Your task to perform on an android device: turn notification dots on Image 0: 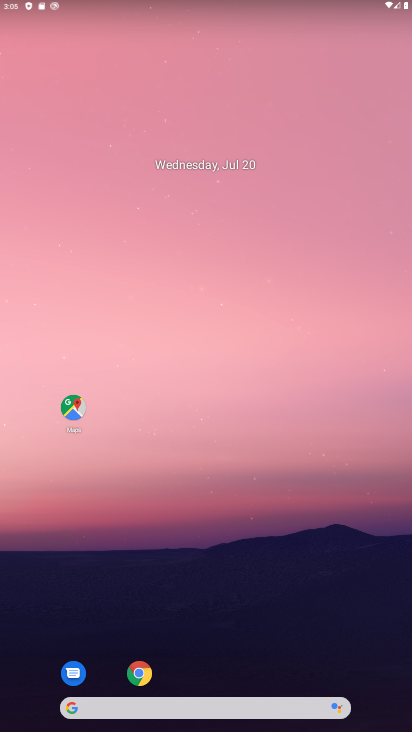
Step 0: drag from (181, 380) to (161, 261)
Your task to perform on an android device: turn notification dots on Image 1: 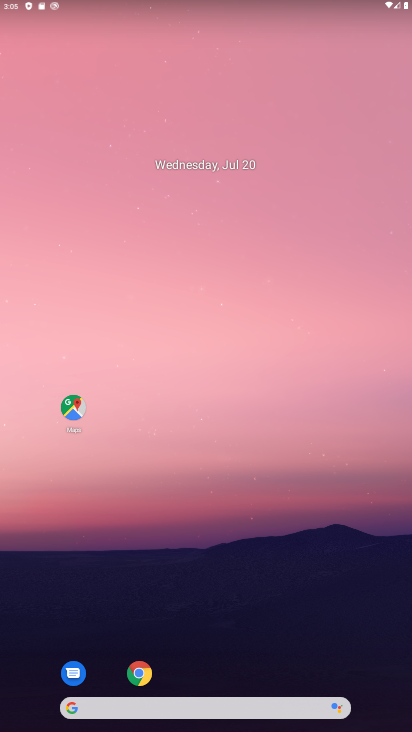
Step 1: drag from (236, 621) to (238, 297)
Your task to perform on an android device: turn notification dots on Image 2: 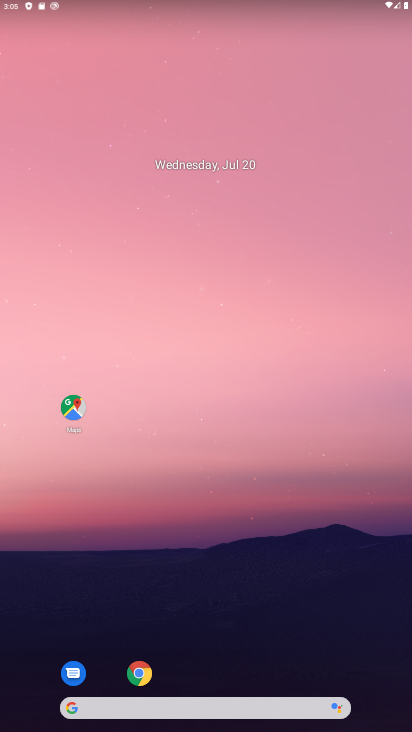
Step 2: drag from (194, 614) to (381, 235)
Your task to perform on an android device: turn notification dots on Image 3: 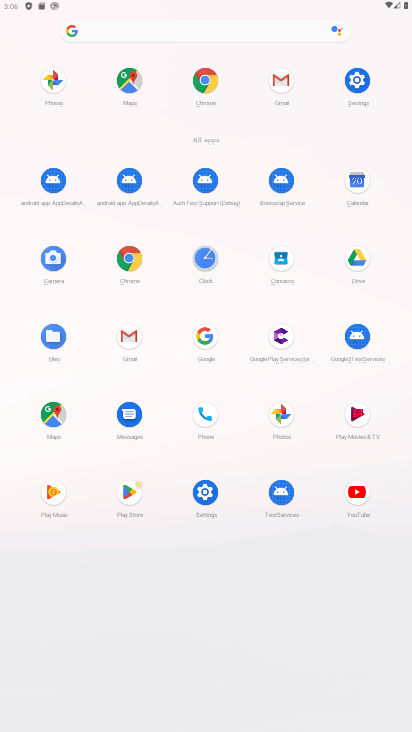
Step 3: click (367, 72)
Your task to perform on an android device: turn notification dots on Image 4: 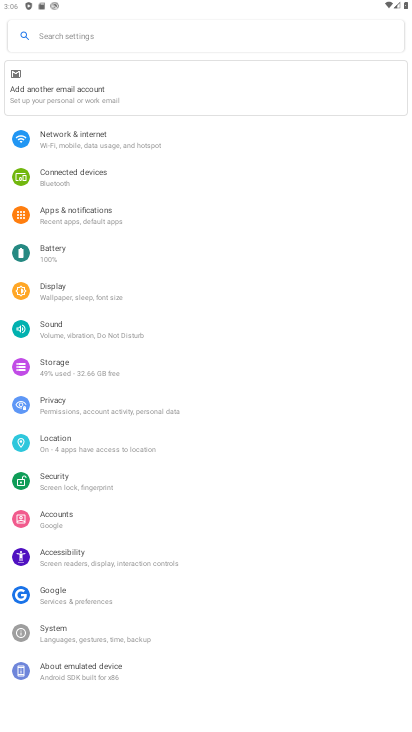
Step 4: click (240, 31)
Your task to perform on an android device: turn notification dots on Image 5: 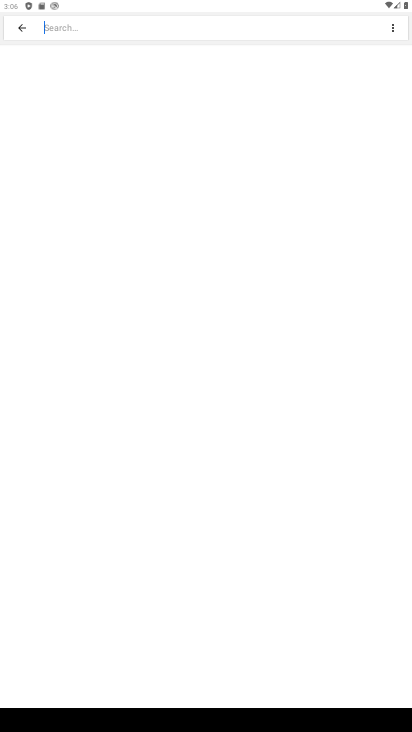
Step 5: click (224, 20)
Your task to perform on an android device: turn notification dots on Image 6: 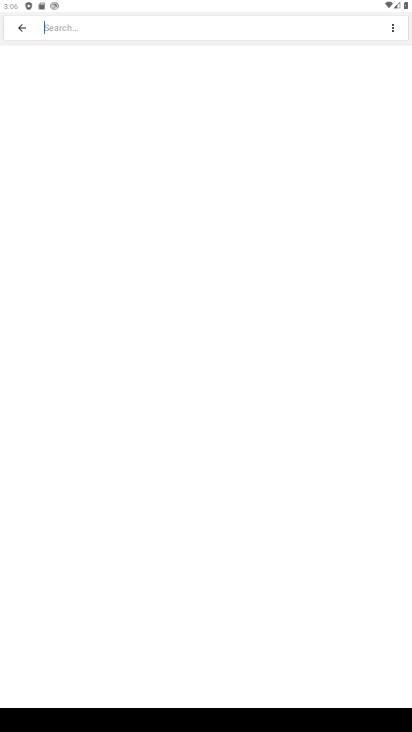
Step 6: type "notification dots  "
Your task to perform on an android device: turn notification dots on Image 7: 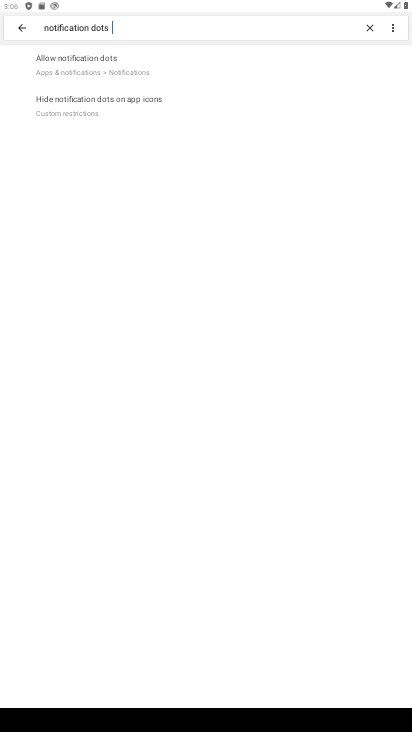
Step 7: click (87, 59)
Your task to perform on an android device: turn notification dots on Image 8: 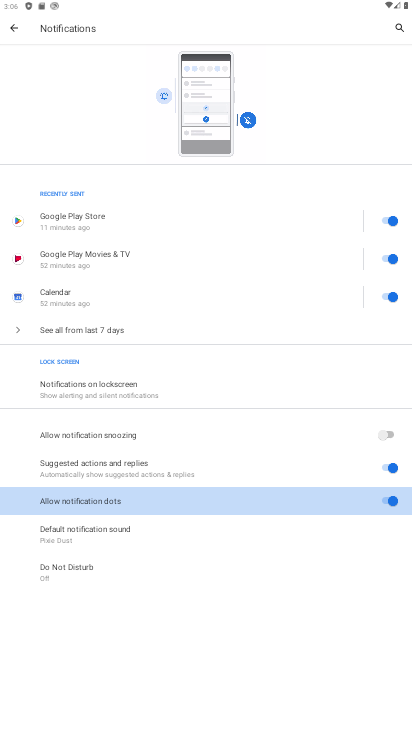
Step 8: task complete